Your task to perform on an android device: Is it going to rain tomorrow? Image 0: 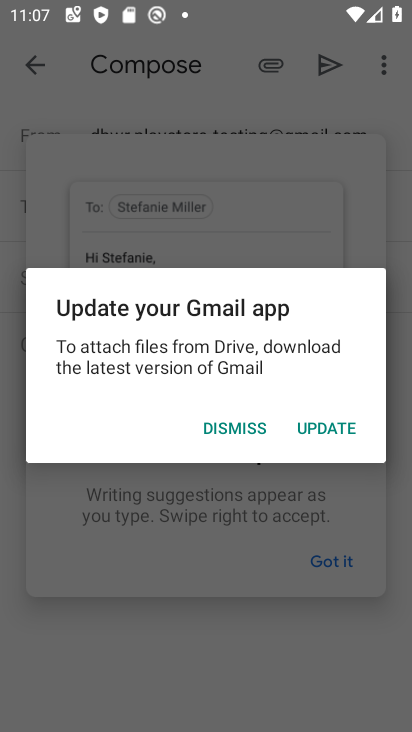
Step 0: press back button
Your task to perform on an android device: Is it going to rain tomorrow? Image 1: 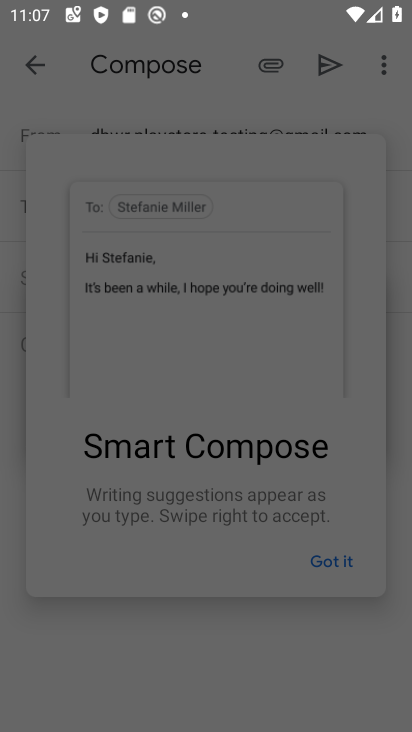
Step 1: press home button
Your task to perform on an android device: Is it going to rain tomorrow? Image 2: 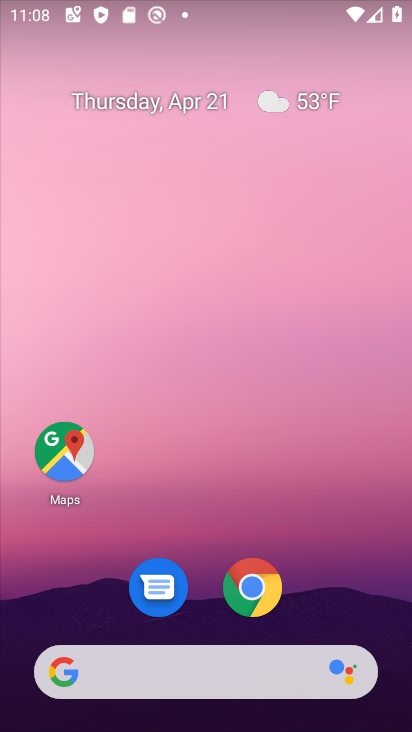
Step 2: click (271, 101)
Your task to perform on an android device: Is it going to rain tomorrow? Image 3: 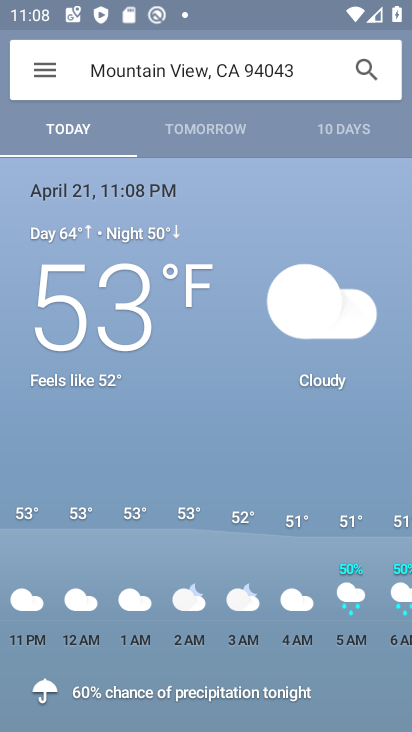
Step 3: click (209, 123)
Your task to perform on an android device: Is it going to rain tomorrow? Image 4: 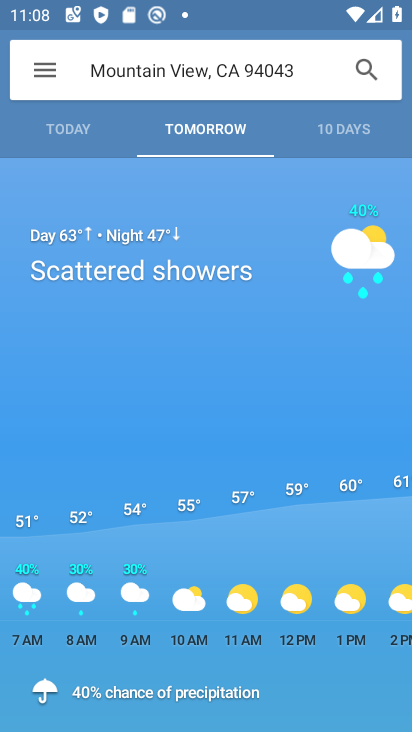
Step 4: task complete